Your task to perform on an android device: Go to battery settings Image 0: 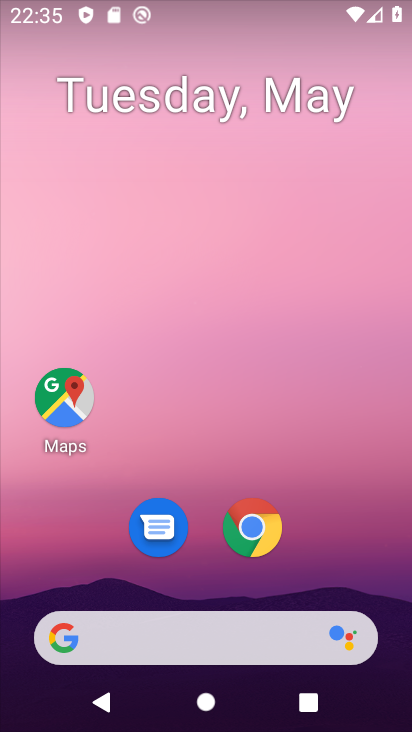
Step 0: drag from (210, 578) to (213, 386)
Your task to perform on an android device: Go to battery settings Image 1: 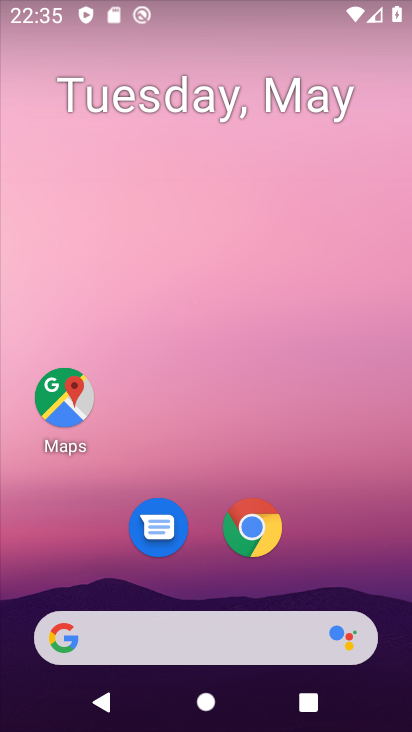
Step 1: drag from (226, 389) to (239, 211)
Your task to perform on an android device: Go to battery settings Image 2: 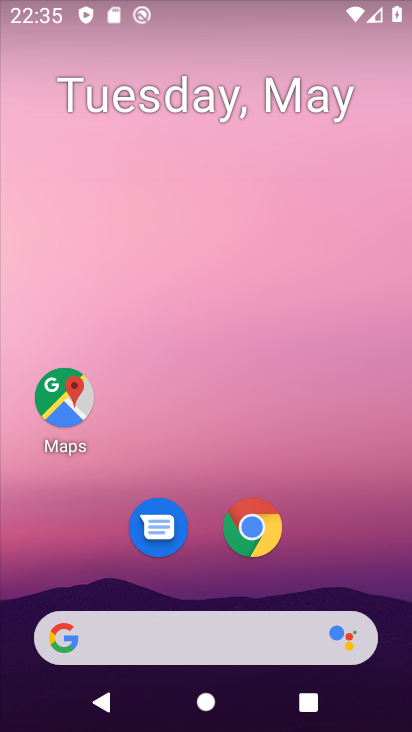
Step 2: drag from (213, 577) to (220, 430)
Your task to perform on an android device: Go to battery settings Image 3: 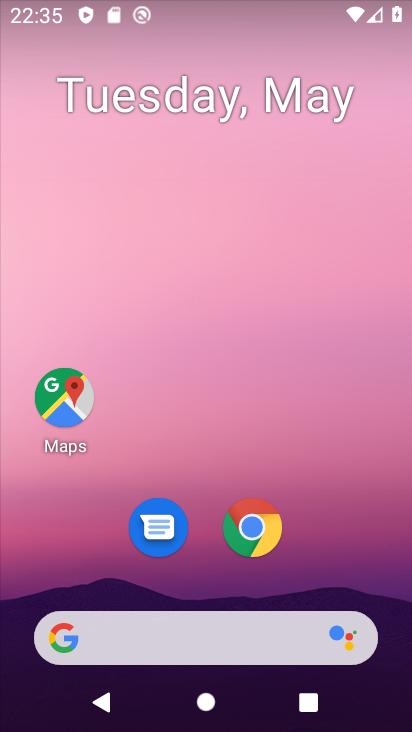
Step 3: drag from (209, 537) to (300, 16)
Your task to perform on an android device: Go to battery settings Image 4: 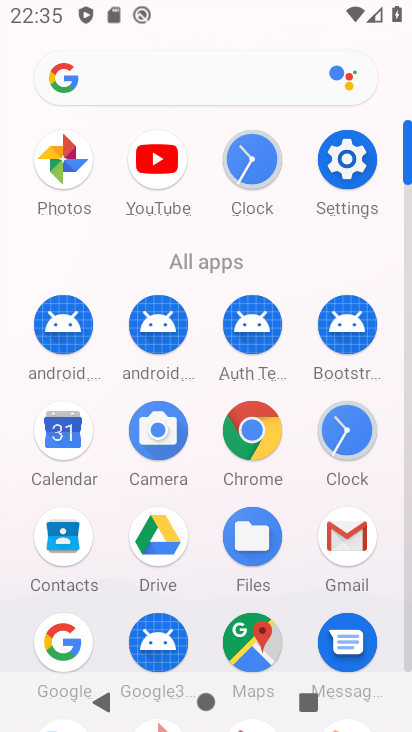
Step 4: click (346, 151)
Your task to perform on an android device: Go to battery settings Image 5: 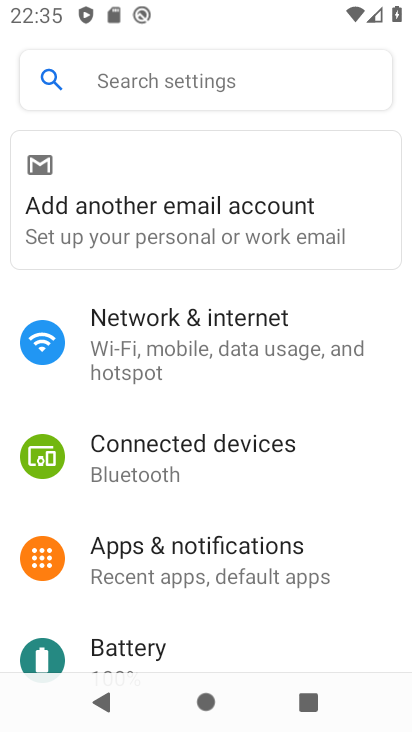
Step 5: drag from (208, 598) to (240, 287)
Your task to perform on an android device: Go to battery settings Image 6: 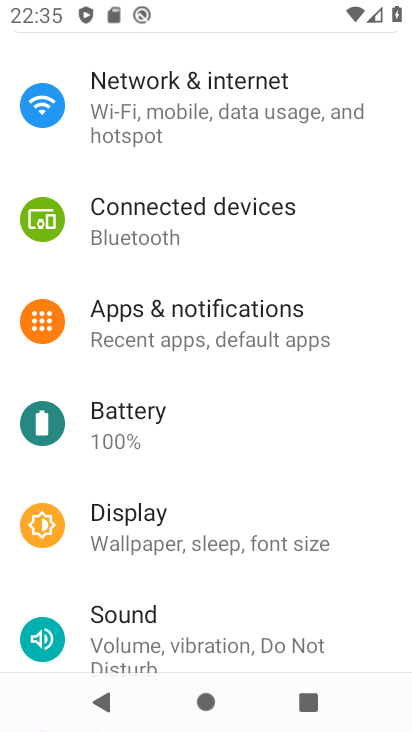
Step 6: click (200, 425)
Your task to perform on an android device: Go to battery settings Image 7: 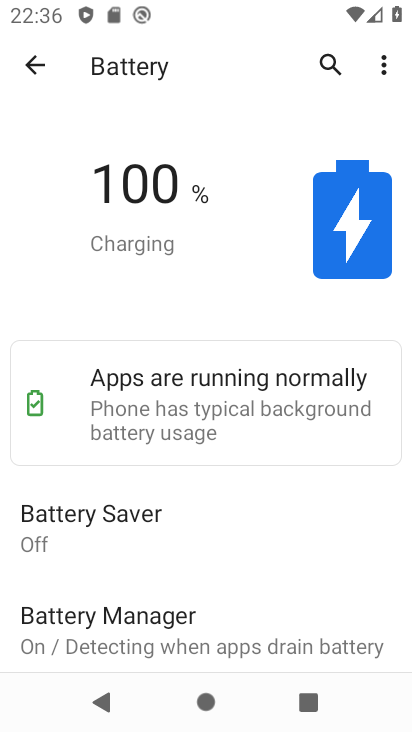
Step 7: task complete